Your task to perform on an android device: toggle notification dots Image 0: 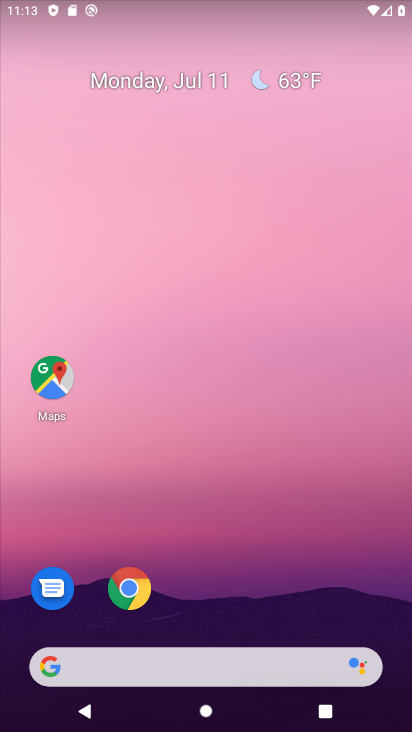
Step 0: drag from (239, 681) to (217, 175)
Your task to perform on an android device: toggle notification dots Image 1: 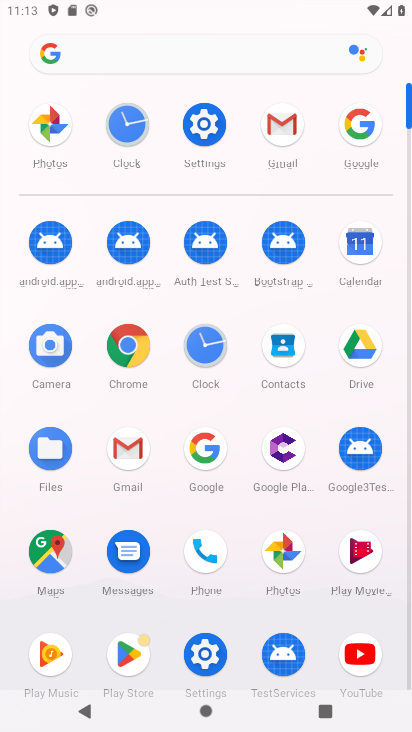
Step 1: click (204, 125)
Your task to perform on an android device: toggle notification dots Image 2: 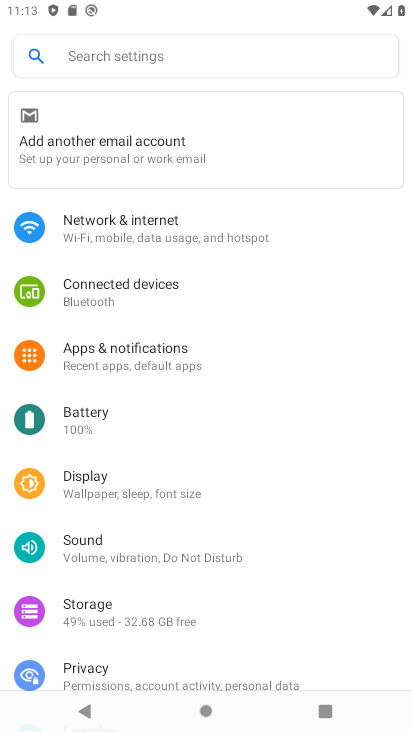
Step 2: click (98, 346)
Your task to perform on an android device: toggle notification dots Image 3: 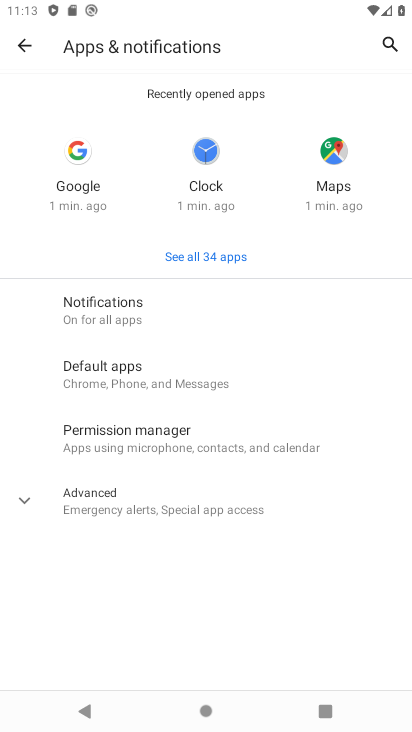
Step 3: click (93, 308)
Your task to perform on an android device: toggle notification dots Image 4: 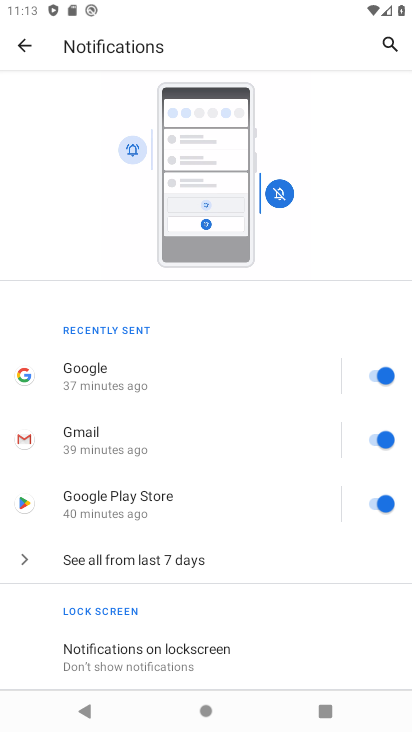
Step 4: drag from (142, 671) to (143, 329)
Your task to perform on an android device: toggle notification dots Image 5: 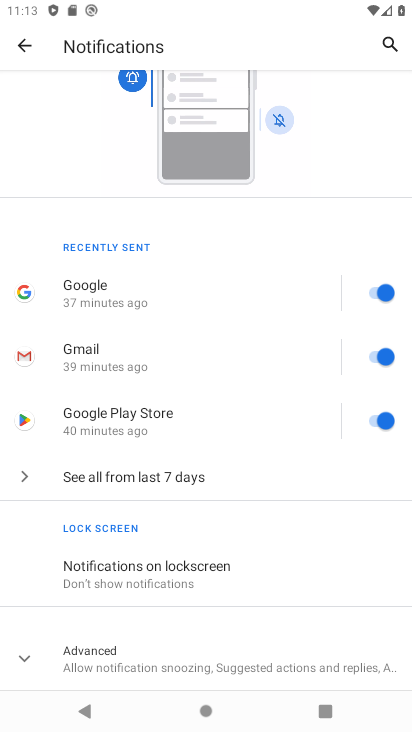
Step 5: click (117, 659)
Your task to perform on an android device: toggle notification dots Image 6: 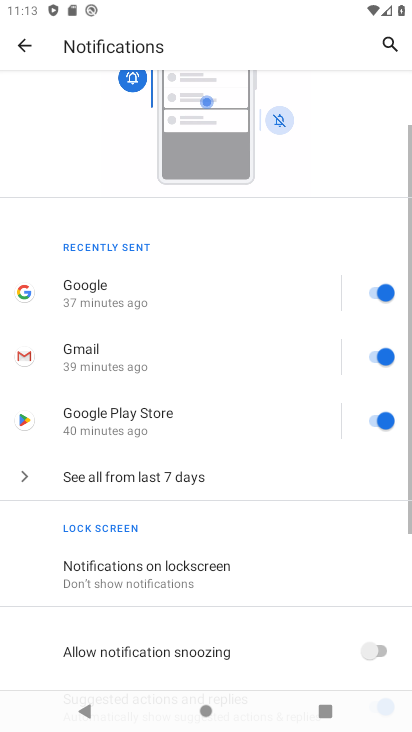
Step 6: drag from (241, 669) to (238, 321)
Your task to perform on an android device: toggle notification dots Image 7: 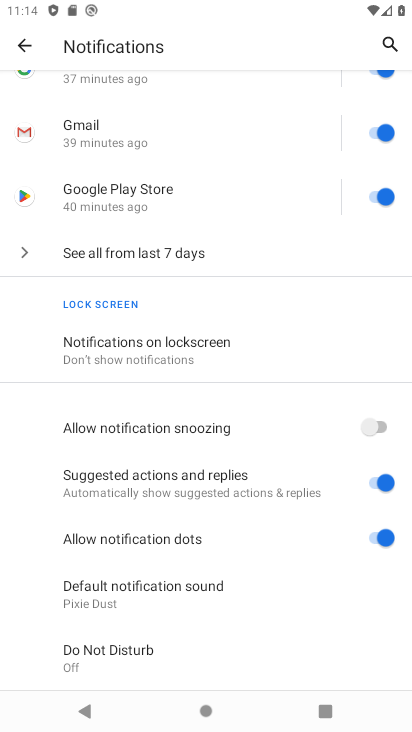
Step 7: click (379, 540)
Your task to perform on an android device: toggle notification dots Image 8: 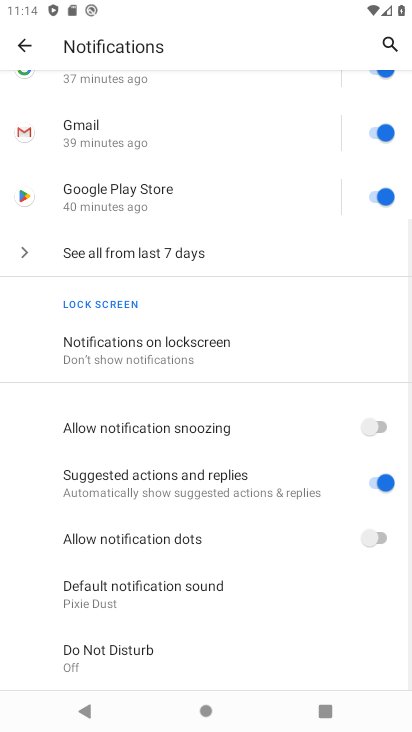
Step 8: task complete